Your task to perform on an android device: turn off picture-in-picture Image 0: 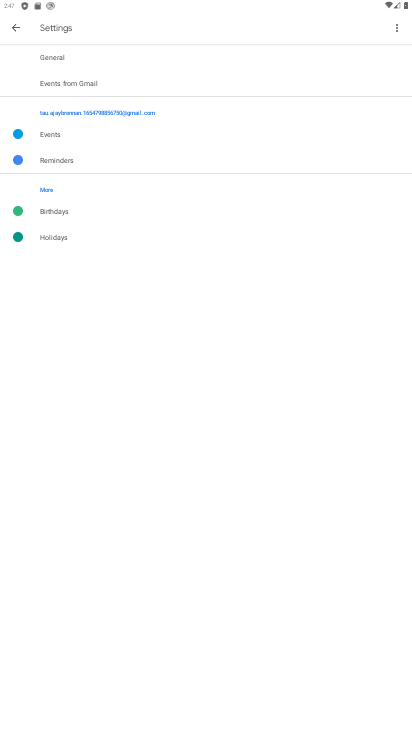
Step 0: press home button
Your task to perform on an android device: turn off picture-in-picture Image 1: 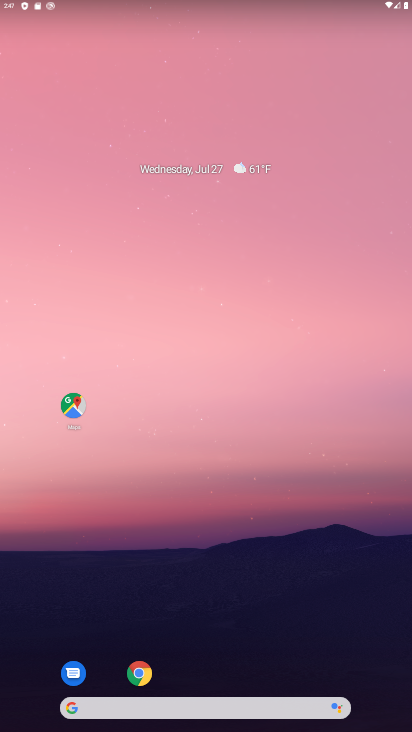
Step 1: drag from (243, 667) to (197, 0)
Your task to perform on an android device: turn off picture-in-picture Image 2: 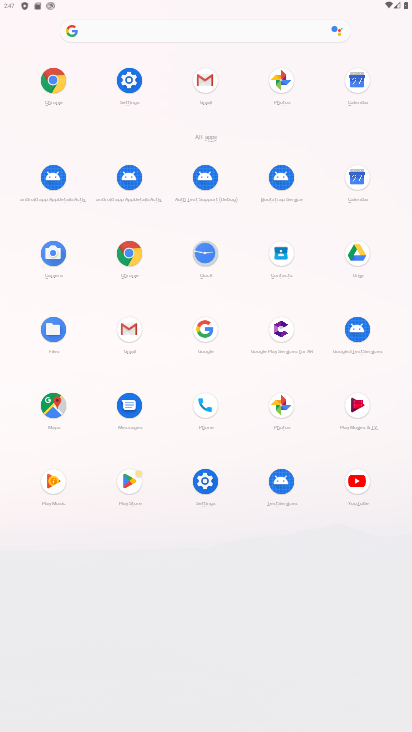
Step 2: click (118, 76)
Your task to perform on an android device: turn off picture-in-picture Image 3: 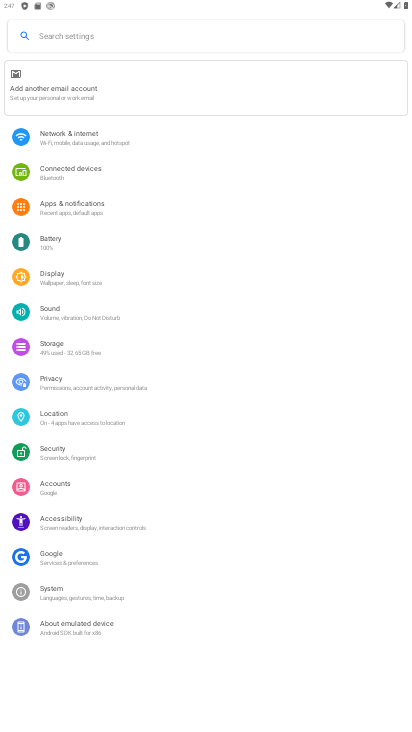
Step 3: click (107, 34)
Your task to perform on an android device: turn off picture-in-picture Image 4: 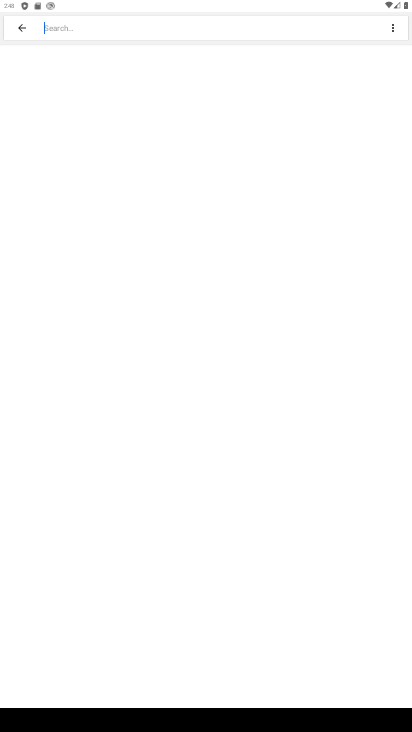
Step 4: type "picture in picture"
Your task to perform on an android device: turn off picture-in-picture Image 5: 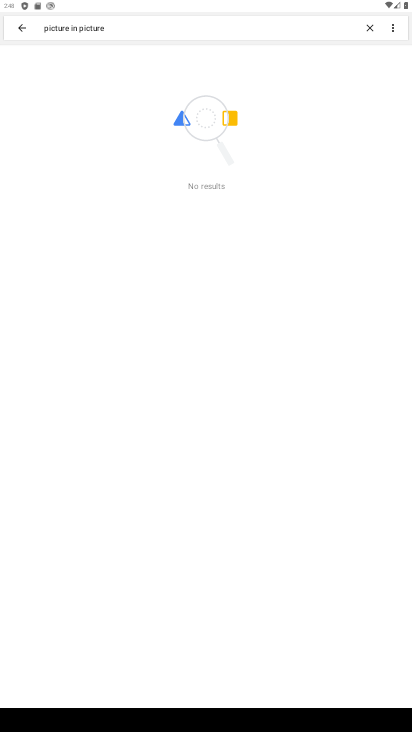
Step 5: click (370, 25)
Your task to perform on an android device: turn off picture-in-picture Image 6: 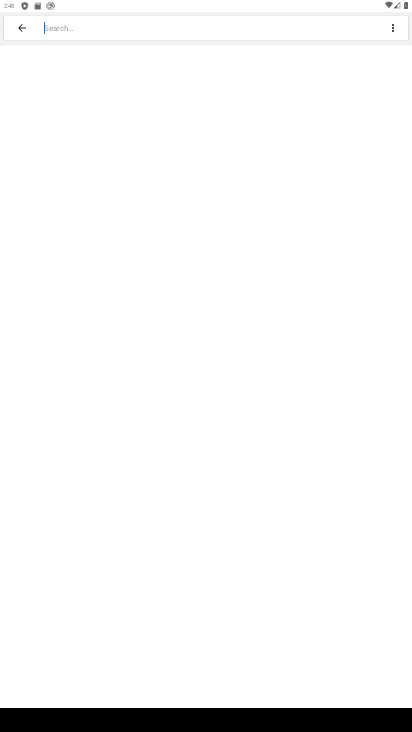
Step 6: type "picture"
Your task to perform on an android device: turn off picture-in-picture Image 7: 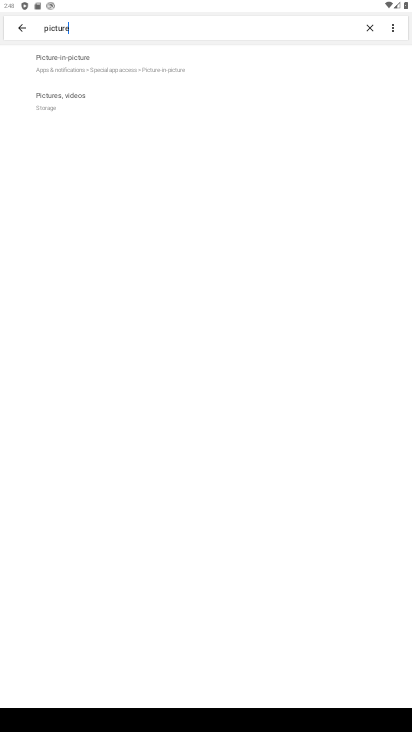
Step 7: click (95, 65)
Your task to perform on an android device: turn off picture-in-picture Image 8: 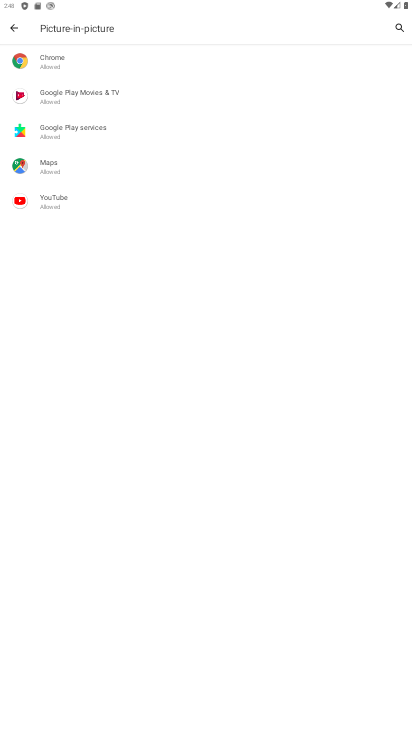
Step 8: click (53, 198)
Your task to perform on an android device: turn off picture-in-picture Image 9: 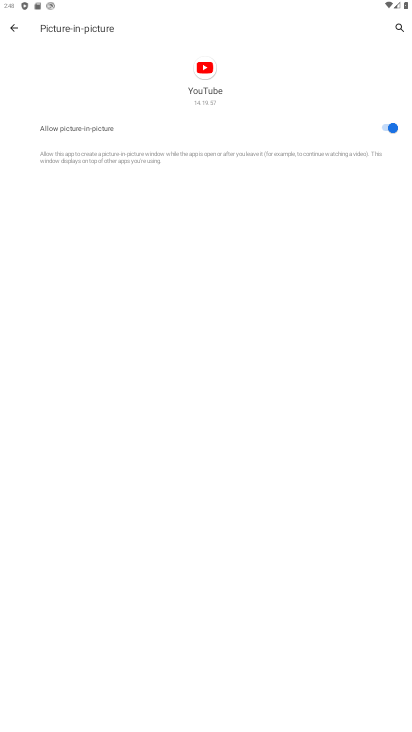
Step 9: click (383, 122)
Your task to perform on an android device: turn off picture-in-picture Image 10: 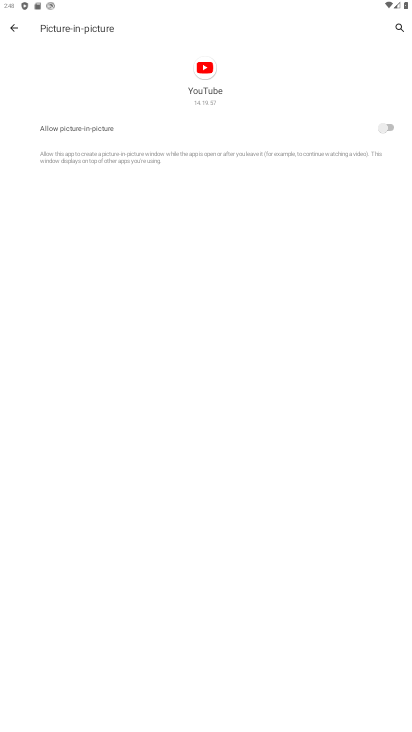
Step 10: click (12, 26)
Your task to perform on an android device: turn off picture-in-picture Image 11: 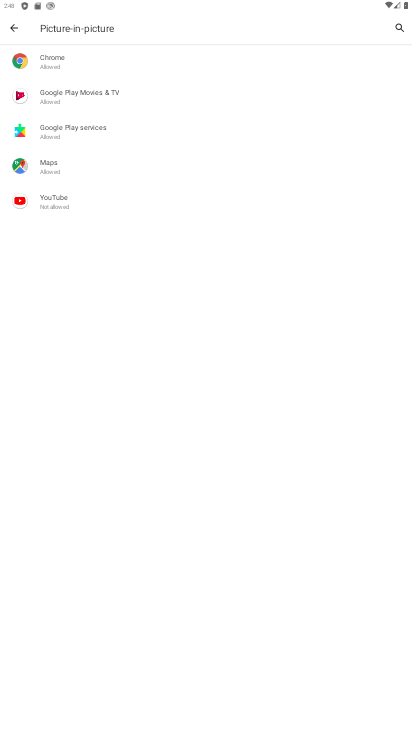
Step 11: click (123, 165)
Your task to perform on an android device: turn off picture-in-picture Image 12: 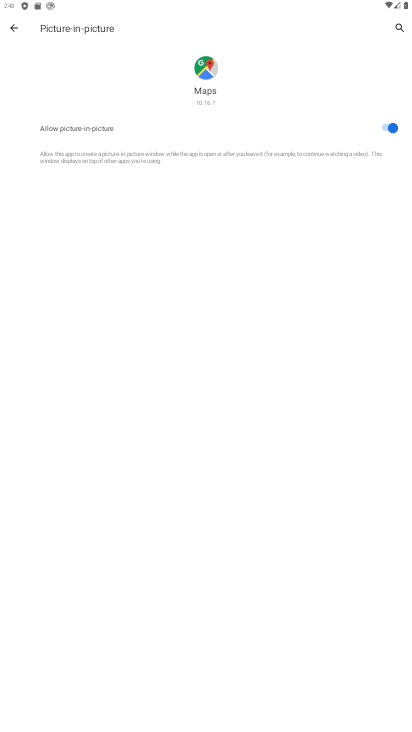
Step 12: click (393, 128)
Your task to perform on an android device: turn off picture-in-picture Image 13: 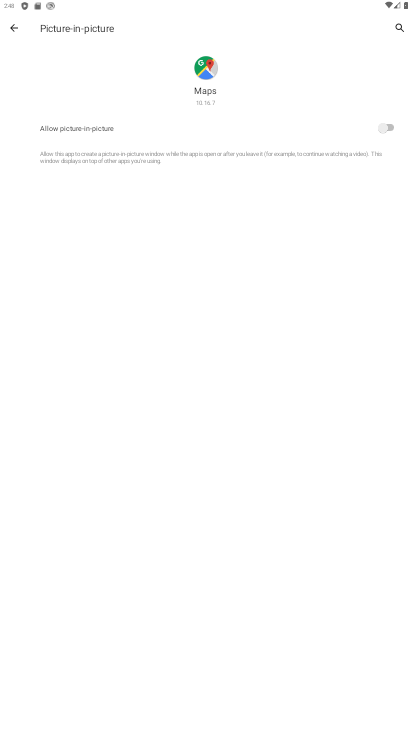
Step 13: click (15, 29)
Your task to perform on an android device: turn off picture-in-picture Image 14: 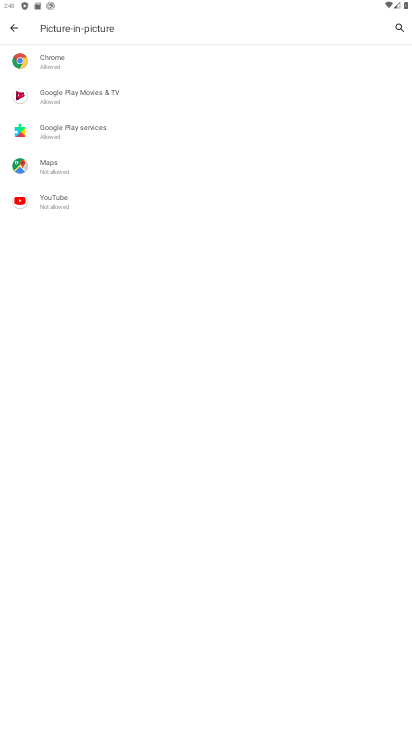
Step 14: click (105, 132)
Your task to perform on an android device: turn off picture-in-picture Image 15: 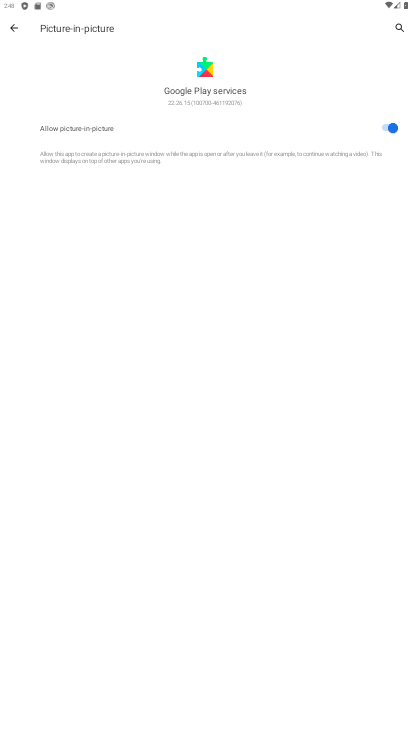
Step 15: click (390, 126)
Your task to perform on an android device: turn off picture-in-picture Image 16: 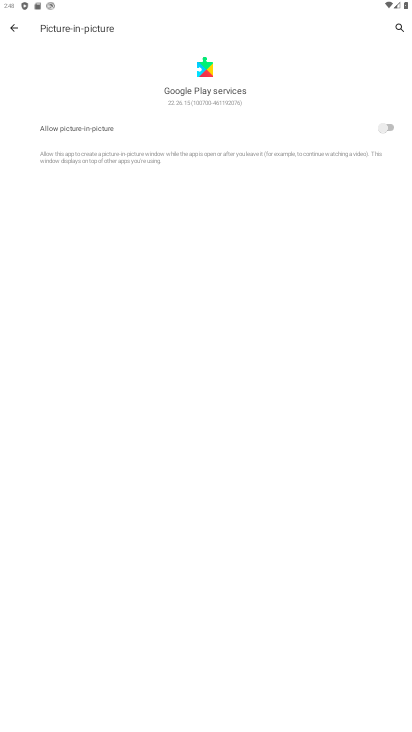
Step 16: click (15, 32)
Your task to perform on an android device: turn off picture-in-picture Image 17: 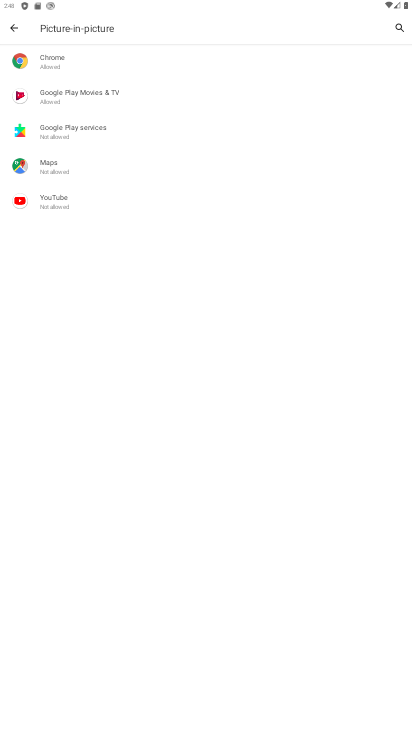
Step 17: click (123, 94)
Your task to perform on an android device: turn off picture-in-picture Image 18: 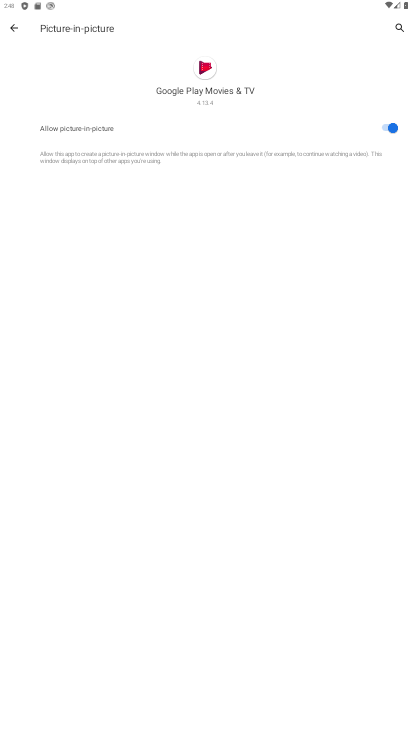
Step 18: click (388, 129)
Your task to perform on an android device: turn off picture-in-picture Image 19: 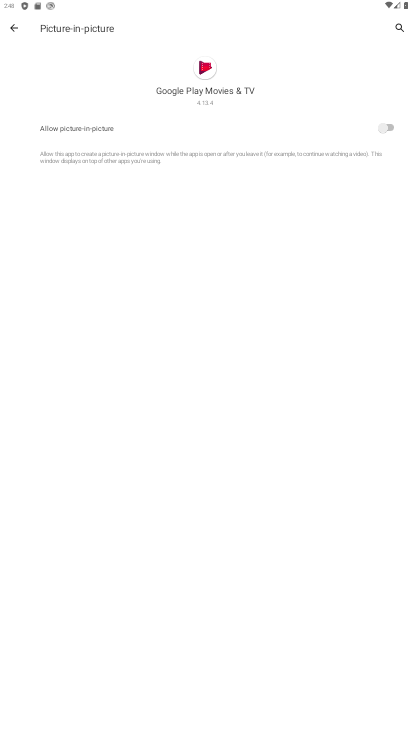
Step 19: click (15, 25)
Your task to perform on an android device: turn off picture-in-picture Image 20: 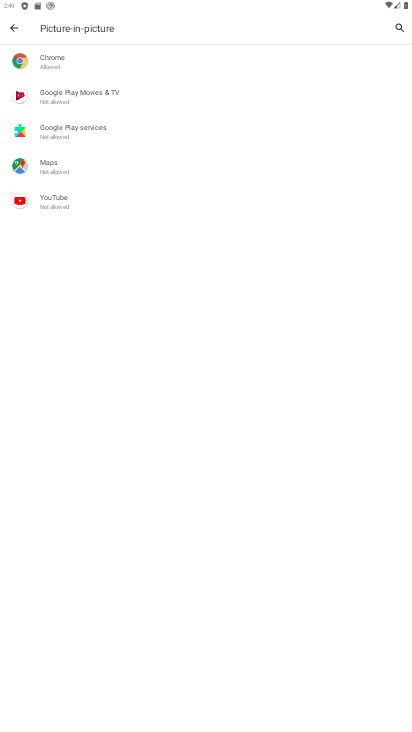
Step 20: click (73, 58)
Your task to perform on an android device: turn off picture-in-picture Image 21: 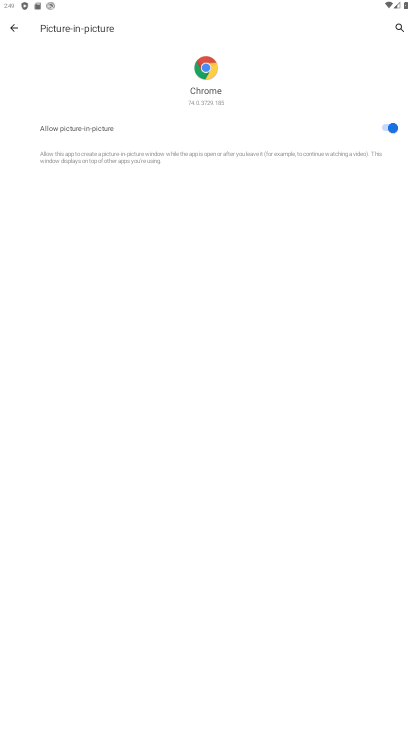
Step 21: click (397, 127)
Your task to perform on an android device: turn off picture-in-picture Image 22: 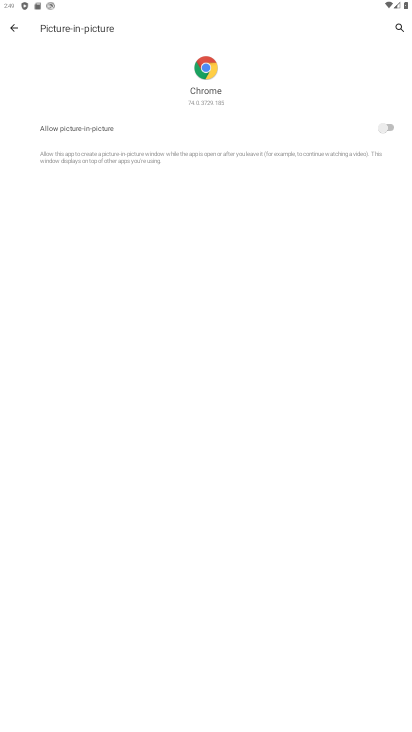
Step 22: task complete